Your task to perform on an android device: open a bookmark in the chrome app Image 0: 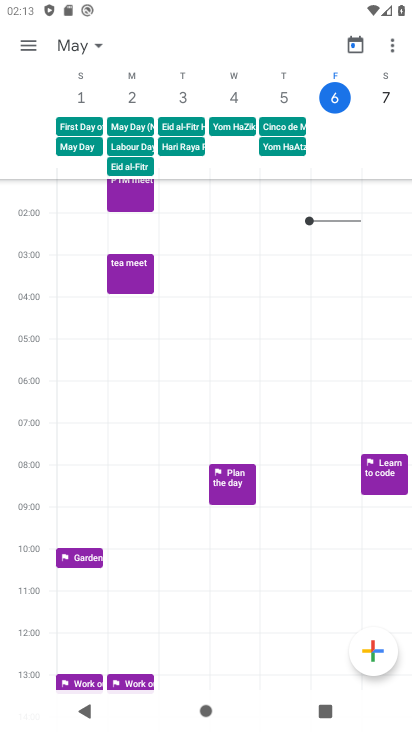
Step 0: press home button
Your task to perform on an android device: open a bookmark in the chrome app Image 1: 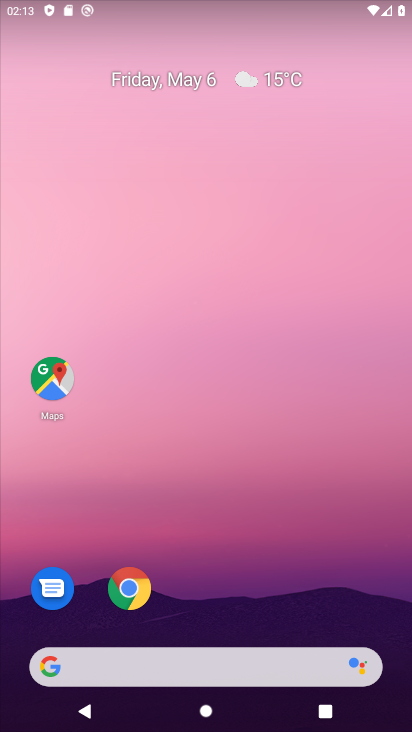
Step 1: click (144, 593)
Your task to perform on an android device: open a bookmark in the chrome app Image 2: 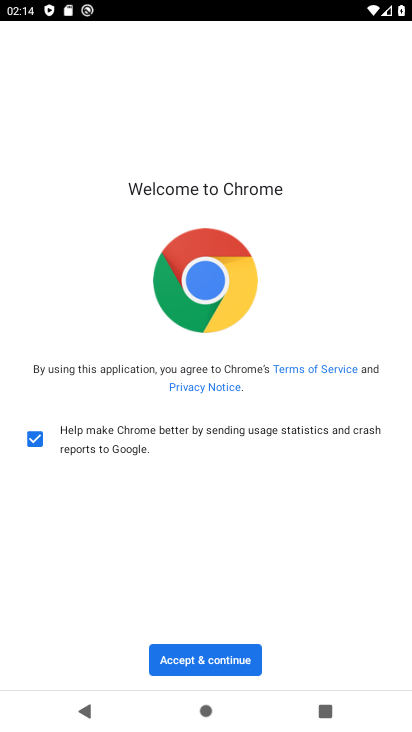
Step 2: click (180, 653)
Your task to perform on an android device: open a bookmark in the chrome app Image 3: 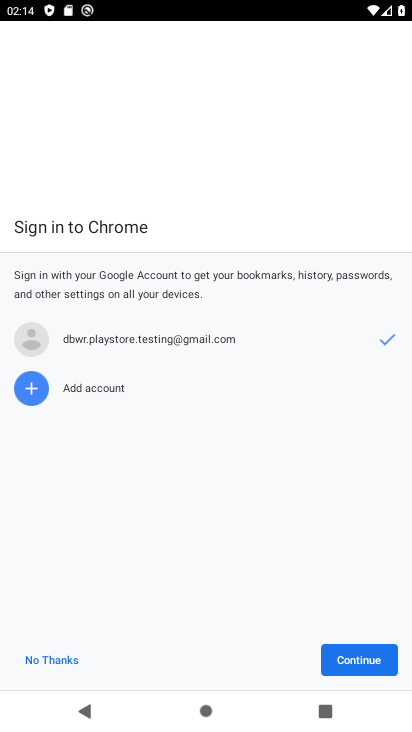
Step 3: click (339, 652)
Your task to perform on an android device: open a bookmark in the chrome app Image 4: 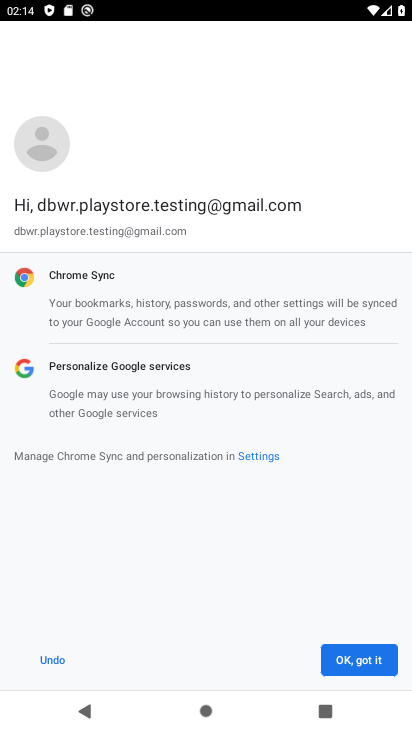
Step 4: click (368, 659)
Your task to perform on an android device: open a bookmark in the chrome app Image 5: 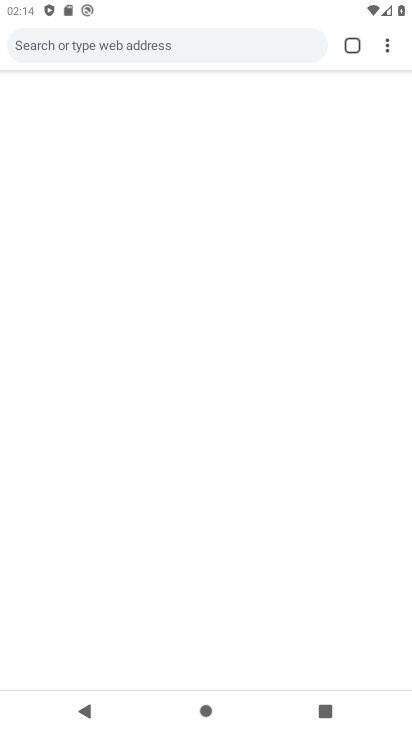
Step 5: click (368, 659)
Your task to perform on an android device: open a bookmark in the chrome app Image 6: 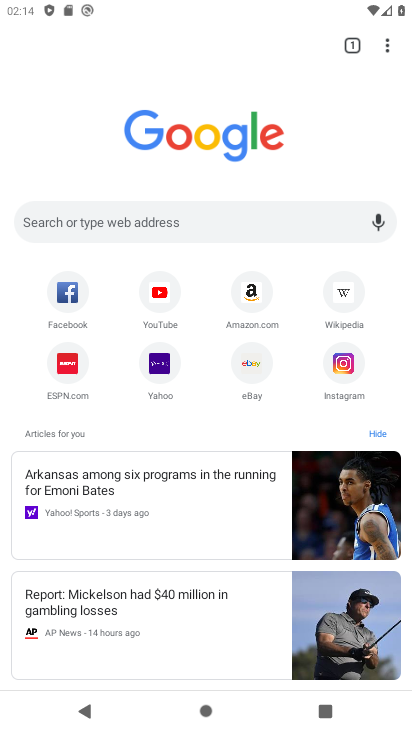
Step 6: click (382, 38)
Your task to perform on an android device: open a bookmark in the chrome app Image 7: 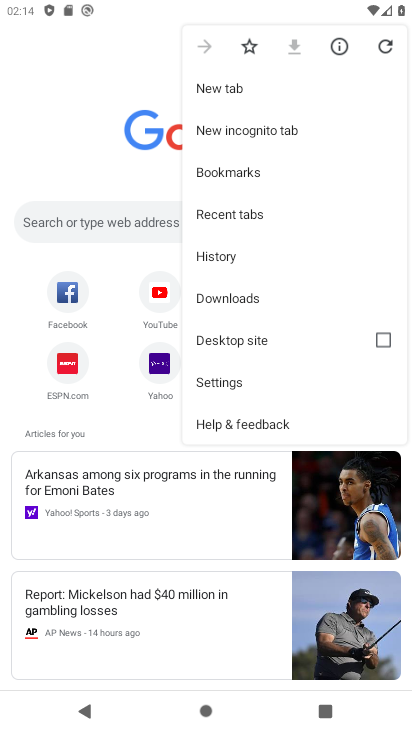
Step 7: click (246, 188)
Your task to perform on an android device: open a bookmark in the chrome app Image 8: 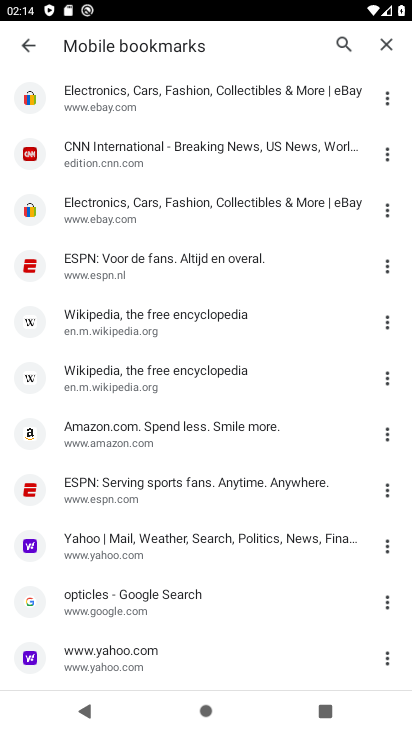
Step 8: task complete